Your task to perform on an android device: see sites visited before in the chrome app Image 0: 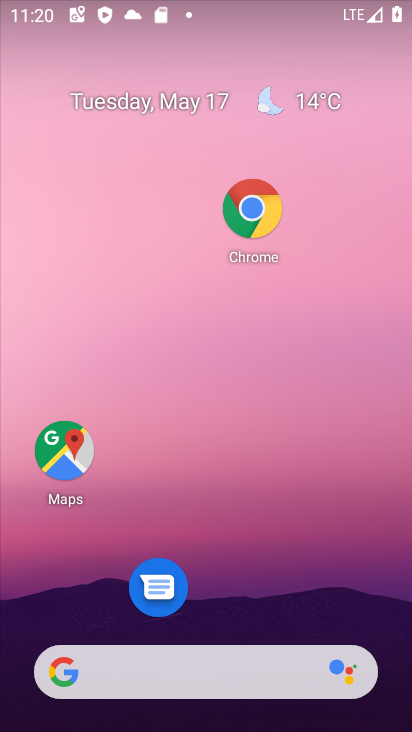
Step 0: click (262, 201)
Your task to perform on an android device: see sites visited before in the chrome app Image 1: 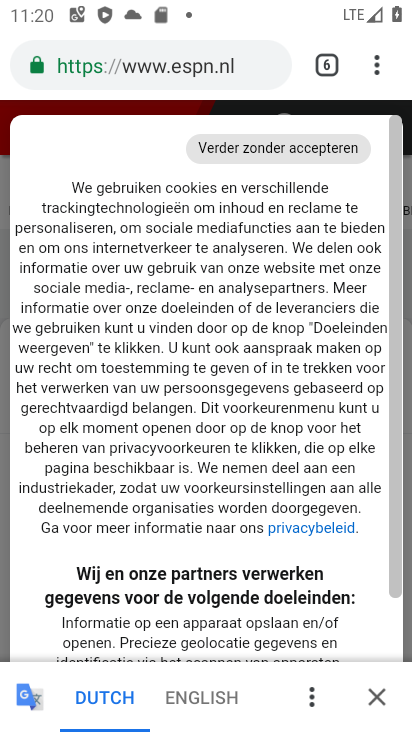
Step 1: click (377, 70)
Your task to perform on an android device: see sites visited before in the chrome app Image 2: 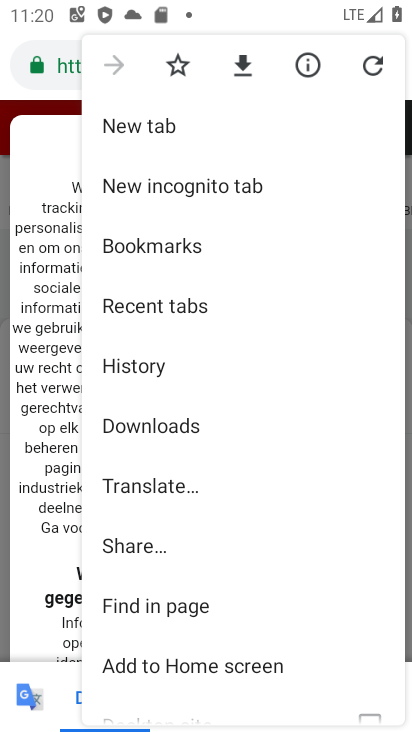
Step 2: drag from (240, 567) to (263, 189)
Your task to perform on an android device: see sites visited before in the chrome app Image 3: 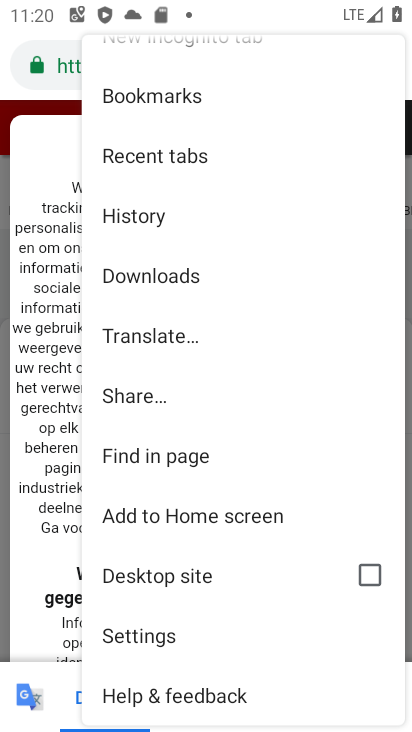
Step 3: click (156, 210)
Your task to perform on an android device: see sites visited before in the chrome app Image 4: 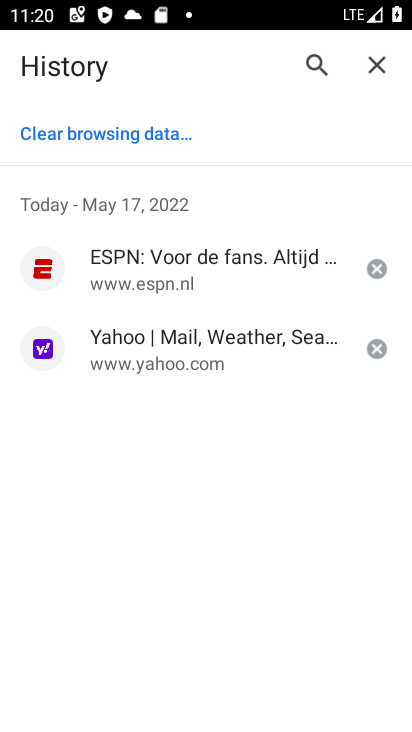
Step 4: task complete